Your task to perform on an android device: Open Google Image 0: 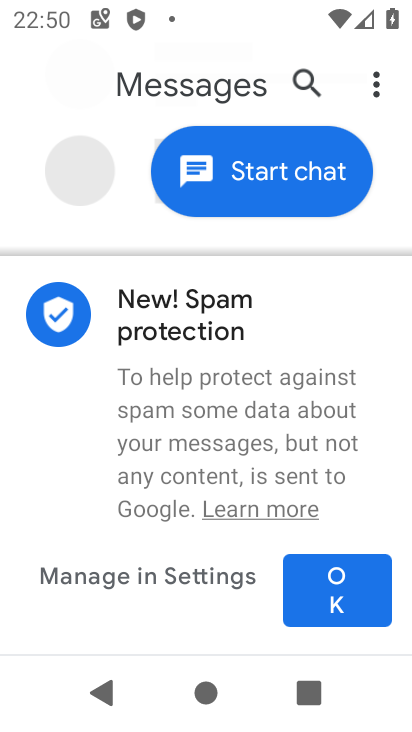
Step 0: press home button
Your task to perform on an android device: Open Google Image 1: 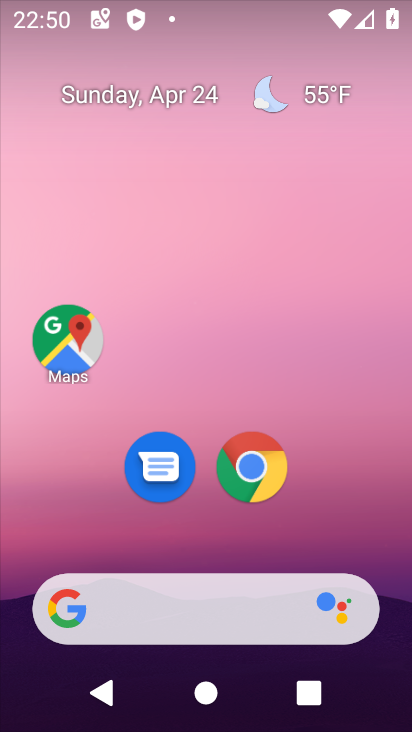
Step 1: drag from (230, 539) to (252, 125)
Your task to perform on an android device: Open Google Image 2: 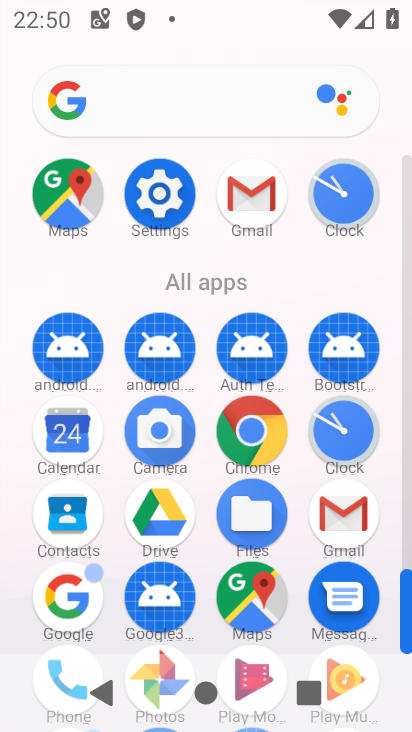
Step 2: click (71, 602)
Your task to perform on an android device: Open Google Image 3: 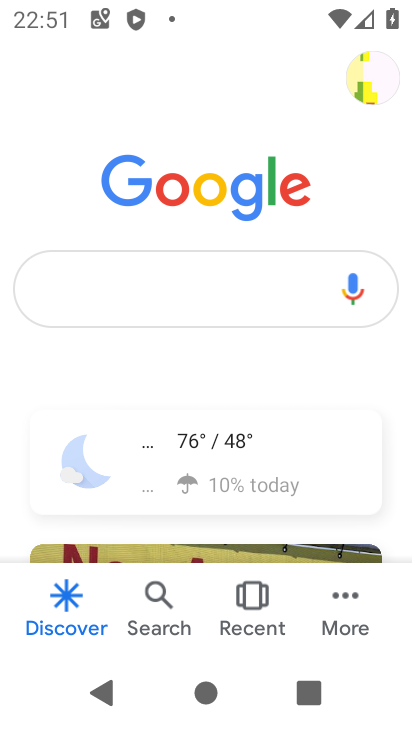
Step 3: task complete